Your task to perform on an android device: change your default location settings in chrome Image 0: 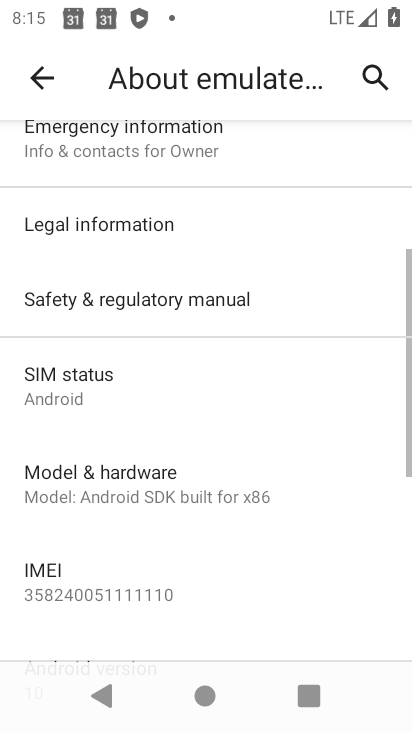
Step 0: press home button
Your task to perform on an android device: change your default location settings in chrome Image 1: 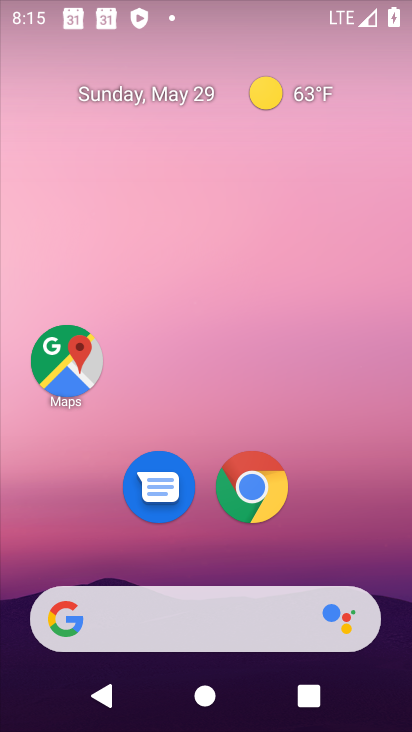
Step 1: drag from (216, 534) to (280, 92)
Your task to perform on an android device: change your default location settings in chrome Image 2: 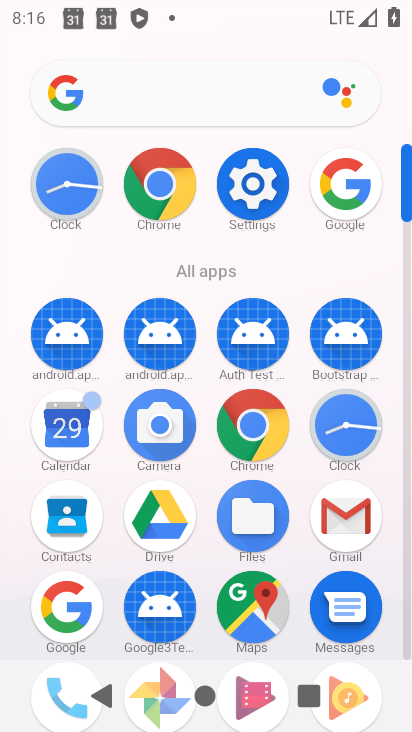
Step 2: click (261, 427)
Your task to perform on an android device: change your default location settings in chrome Image 3: 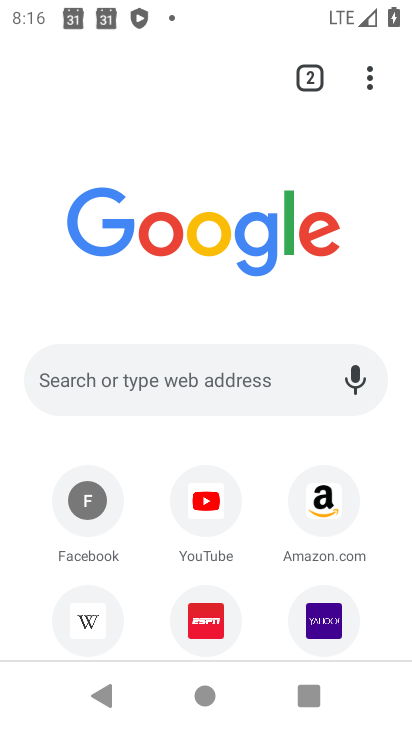
Step 3: click (366, 79)
Your task to perform on an android device: change your default location settings in chrome Image 4: 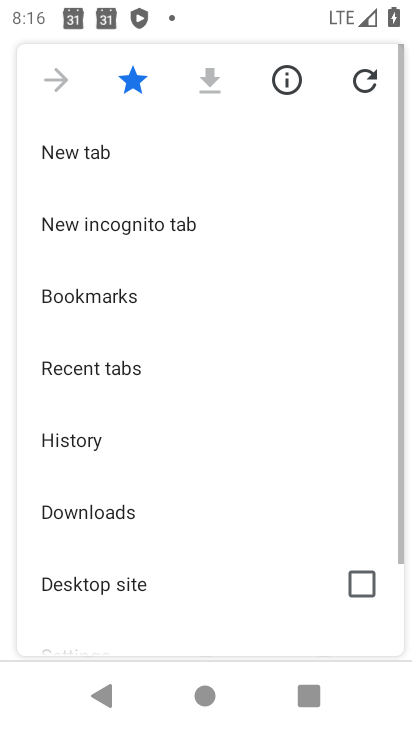
Step 4: drag from (194, 464) to (256, 66)
Your task to perform on an android device: change your default location settings in chrome Image 5: 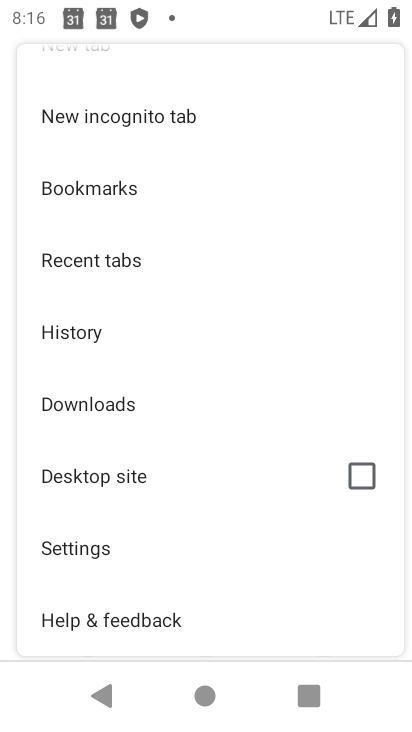
Step 5: click (112, 556)
Your task to perform on an android device: change your default location settings in chrome Image 6: 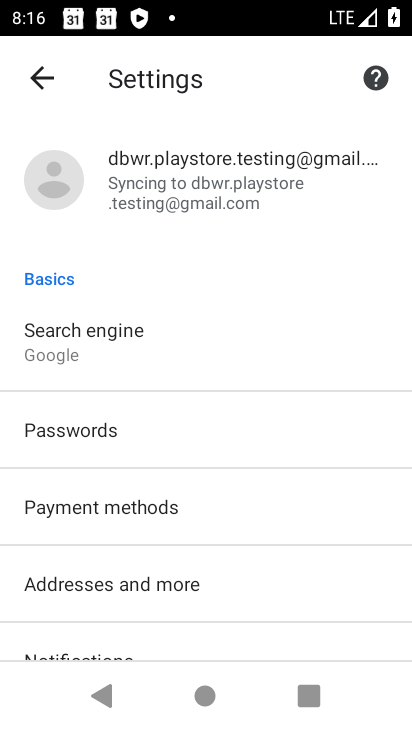
Step 6: drag from (162, 544) to (193, 268)
Your task to perform on an android device: change your default location settings in chrome Image 7: 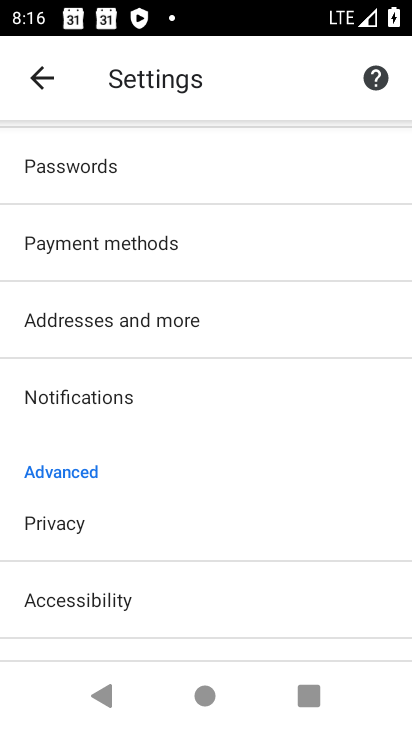
Step 7: drag from (116, 582) to (132, 360)
Your task to perform on an android device: change your default location settings in chrome Image 8: 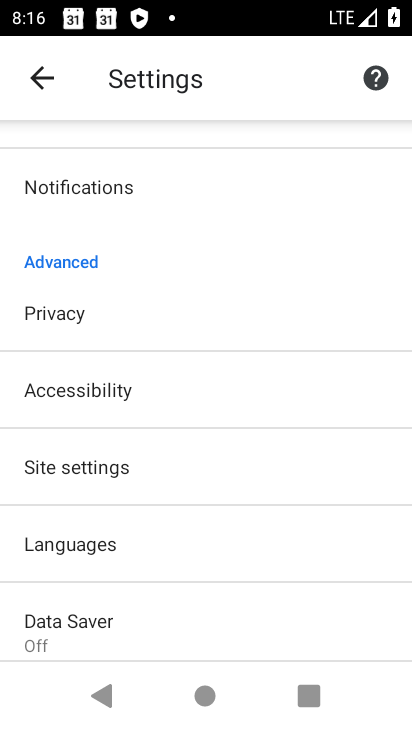
Step 8: click (115, 478)
Your task to perform on an android device: change your default location settings in chrome Image 9: 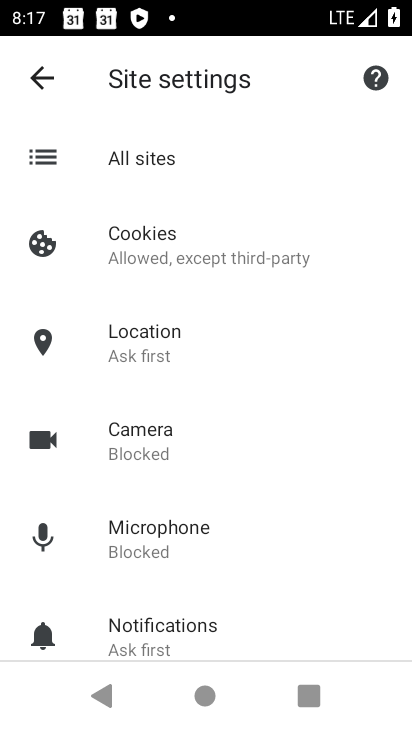
Step 9: drag from (214, 628) to (239, 273)
Your task to perform on an android device: change your default location settings in chrome Image 10: 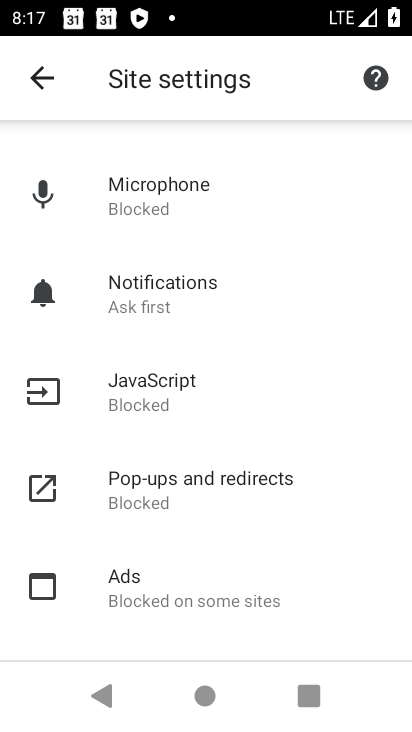
Step 10: drag from (175, 504) to (208, 157)
Your task to perform on an android device: change your default location settings in chrome Image 11: 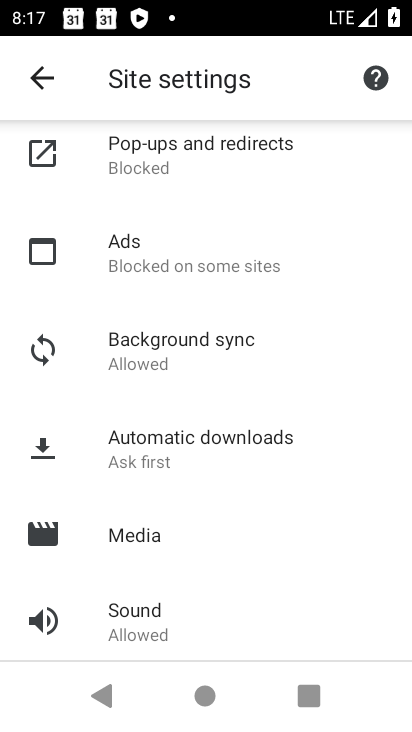
Step 11: drag from (205, 455) to (225, 135)
Your task to perform on an android device: change your default location settings in chrome Image 12: 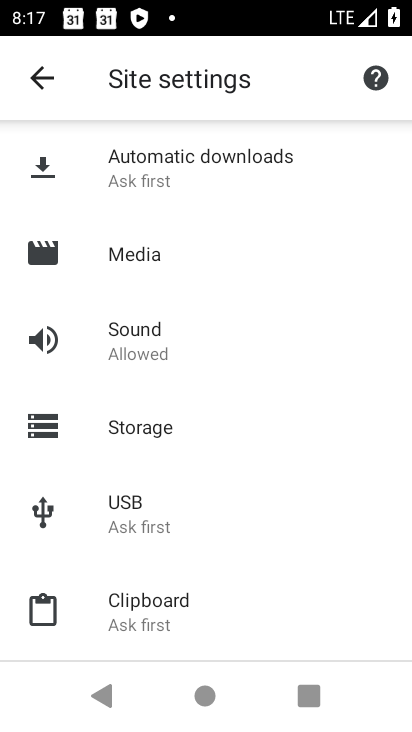
Step 12: drag from (203, 415) to (230, 200)
Your task to perform on an android device: change your default location settings in chrome Image 13: 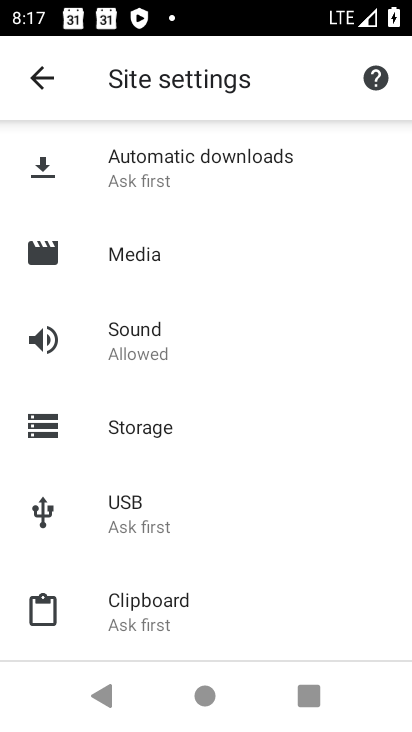
Step 13: drag from (218, 466) to (220, 707)
Your task to perform on an android device: change your default location settings in chrome Image 14: 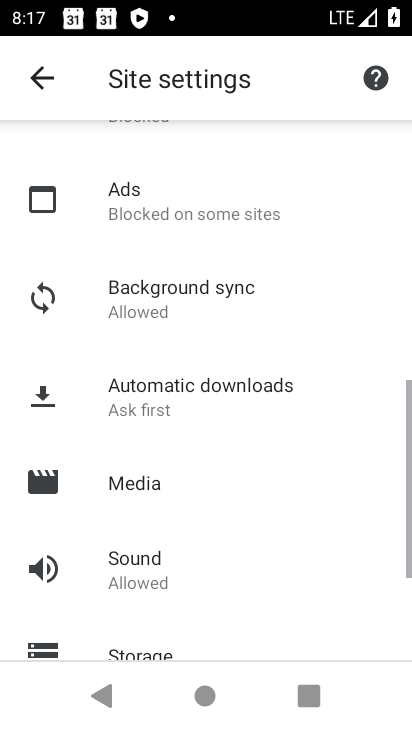
Step 14: drag from (254, 296) to (229, 665)
Your task to perform on an android device: change your default location settings in chrome Image 15: 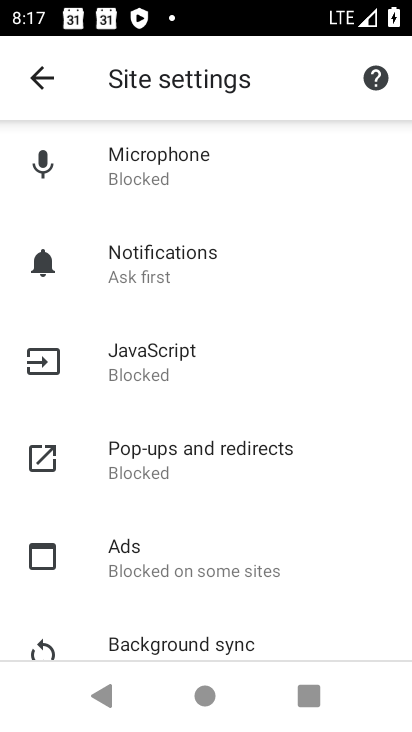
Step 15: drag from (209, 233) to (208, 611)
Your task to perform on an android device: change your default location settings in chrome Image 16: 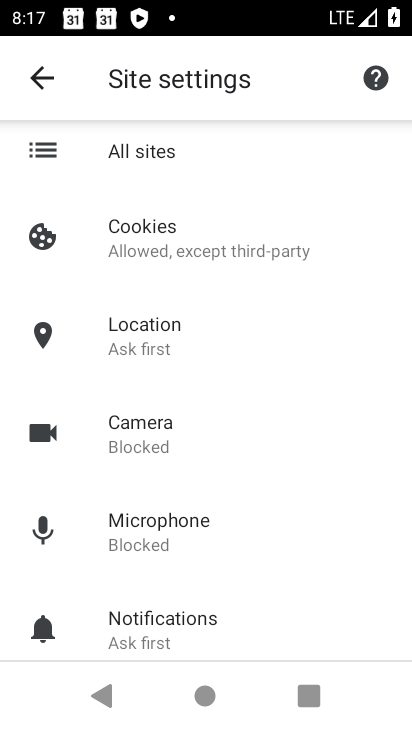
Step 16: drag from (203, 255) to (201, 633)
Your task to perform on an android device: change your default location settings in chrome Image 17: 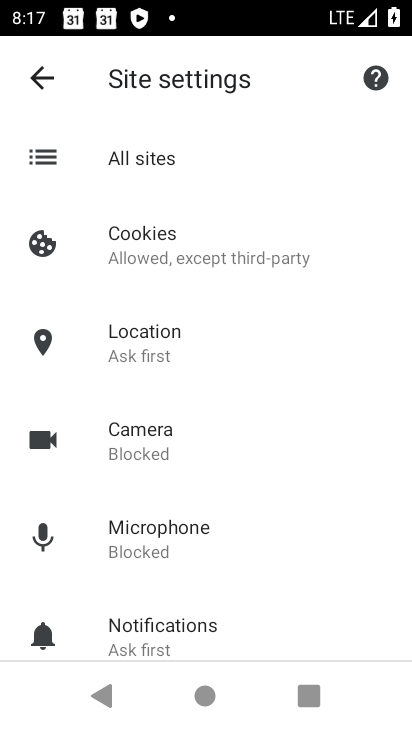
Step 17: click (182, 334)
Your task to perform on an android device: change your default location settings in chrome Image 18: 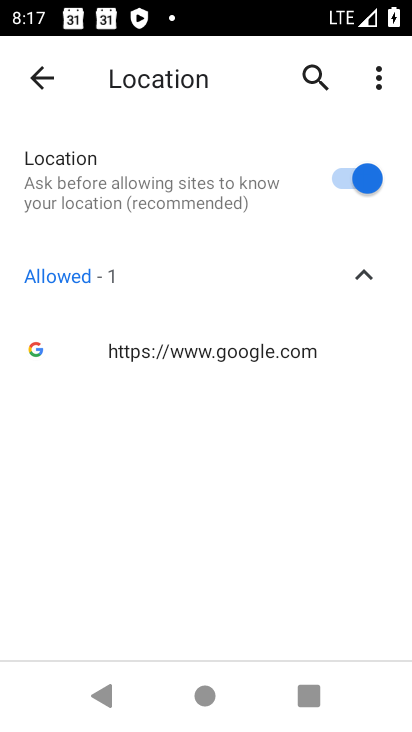
Step 18: click (329, 185)
Your task to perform on an android device: change your default location settings in chrome Image 19: 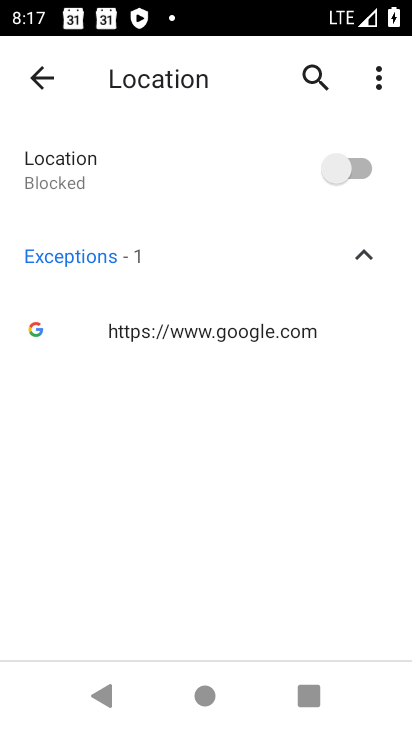
Step 19: task complete